Your task to perform on an android device: turn on data saver in the chrome app Image 0: 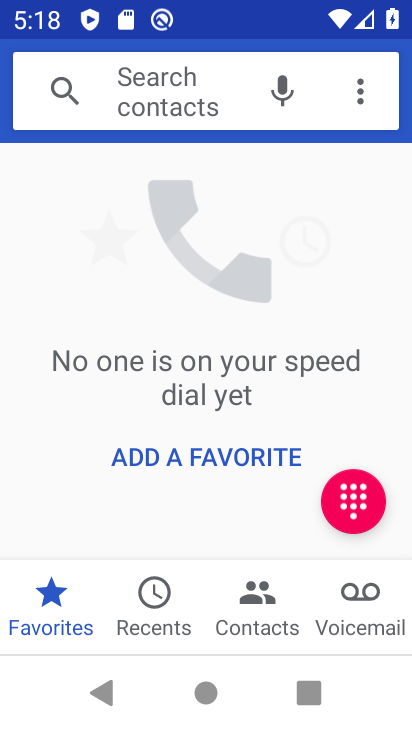
Step 0: press home button
Your task to perform on an android device: turn on data saver in the chrome app Image 1: 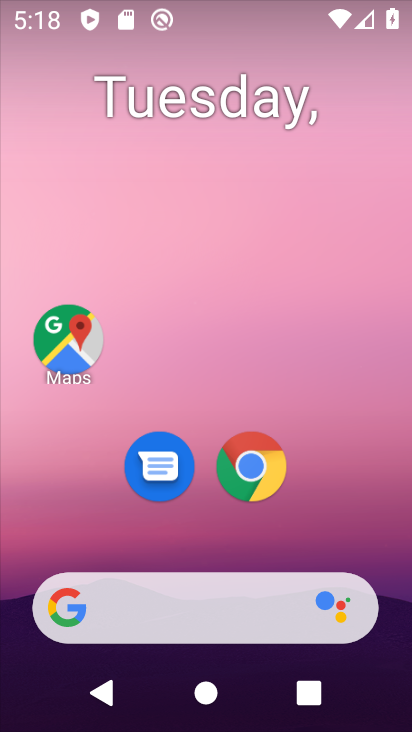
Step 1: click (265, 448)
Your task to perform on an android device: turn on data saver in the chrome app Image 2: 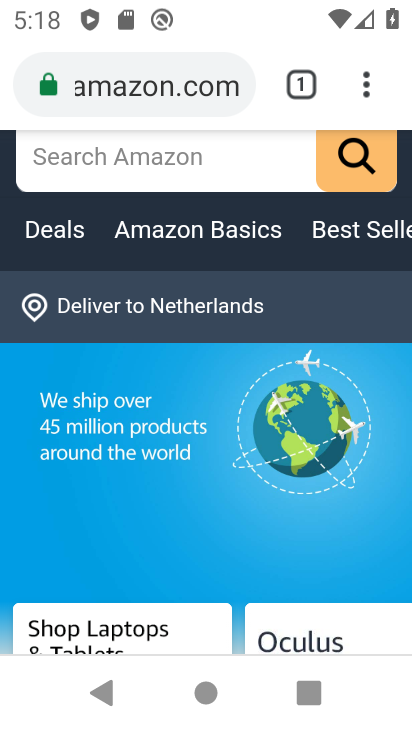
Step 2: drag from (353, 74) to (250, 522)
Your task to perform on an android device: turn on data saver in the chrome app Image 3: 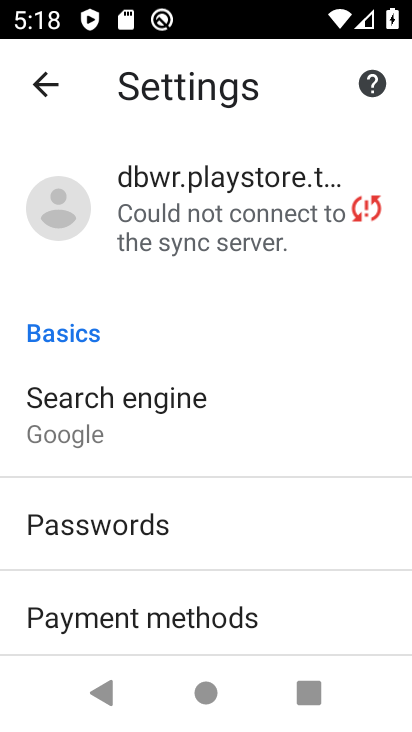
Step 3: drag from (385, 638) to (320, 107)
Your task to perform on an android device: turn on data saver in the chrome app Image 4: 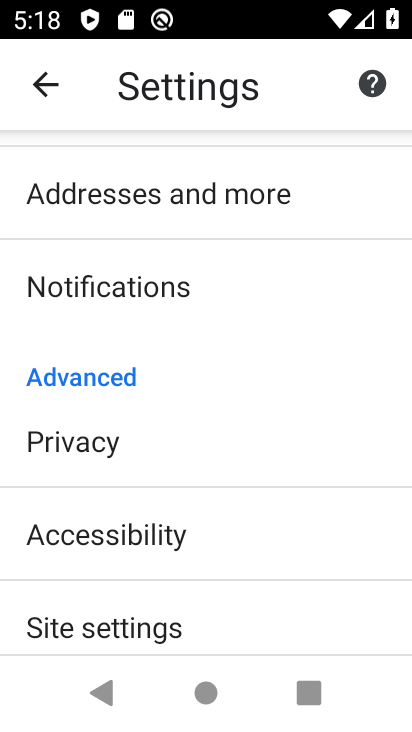
Step 4: drag from (340, 604) to (366, 134)
Your task to perform on an android device: turn on data saver in the chrome app Image 5: 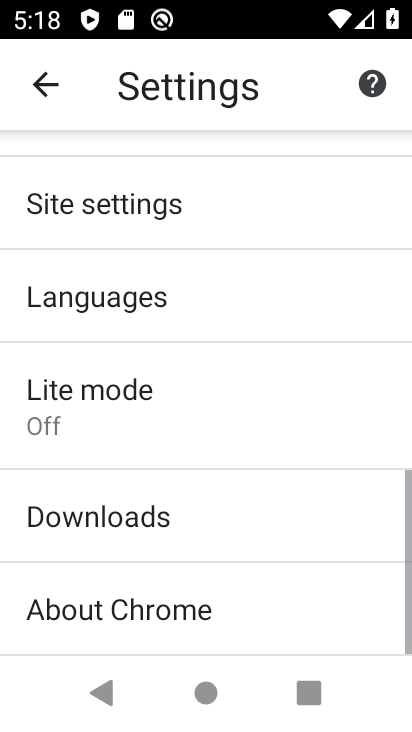
Step 5: click (227, 393)
Your task to perform on an android device: turn on data saver in the chrome app Image 6: 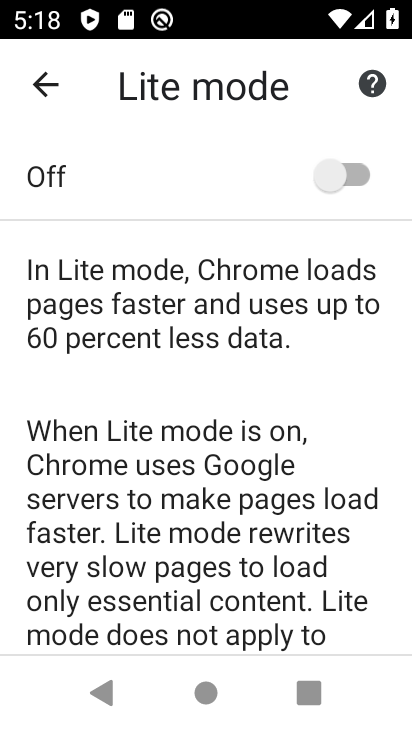
Step 6: click (256, 182)
Your task to perform on an android device: turn on data saver in the chrome app Image 7: 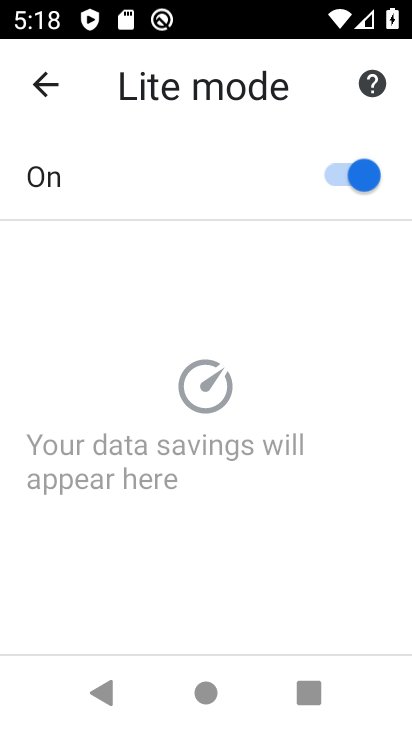
Step 7: task complete